Your task to perform on an android device: turn off notifications in google photos Image 0: 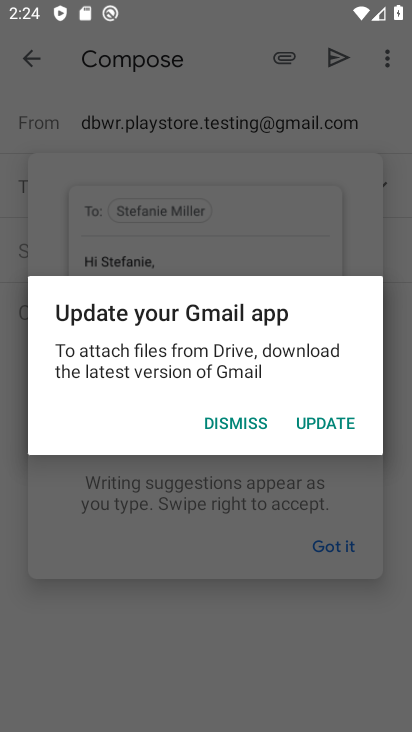
Step 0: click (321, 543)
Your task to perform on an android device: turn off notifications in google photos Image 1: 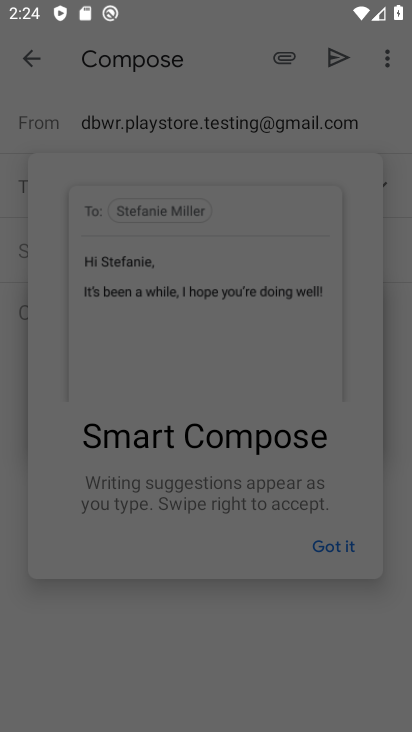
Step 1: click (341, 550)
Your task to perform on an android device: turn off notifications in google photos Image 2: 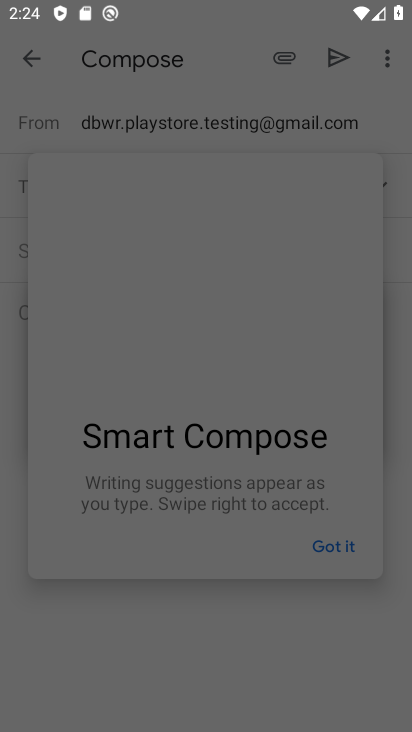
Step 2: click (341, 550)
Your task to perform on an android device: turn off notifications in google photos Image 3: 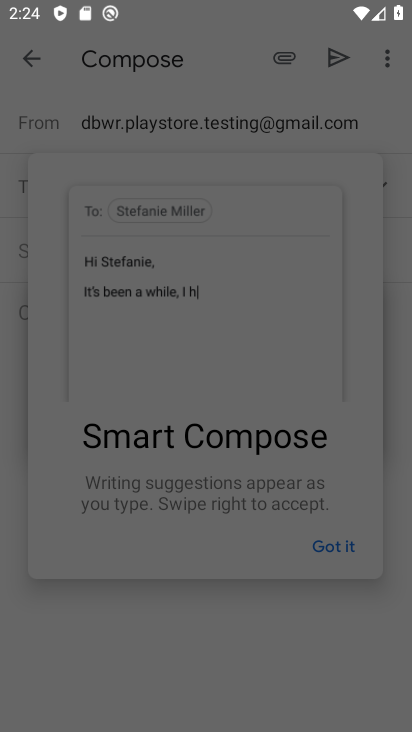
Step 3: press home button
Your task to perform on an android device: turn off notifications in google photos Image 4: 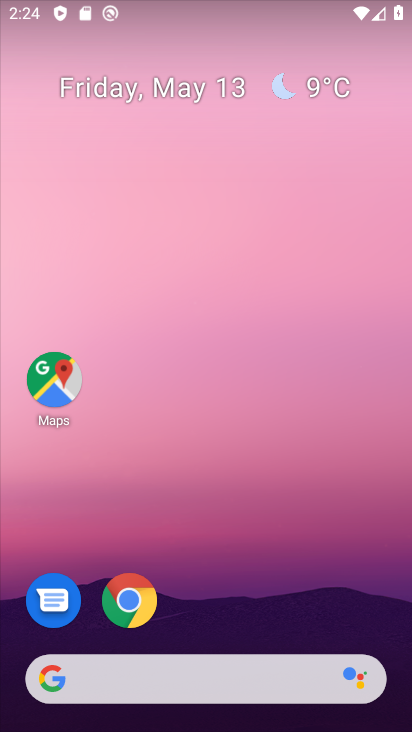
Step 4: press home button
Your task to perform on an android device: turn off notifications in google photos Image 5: 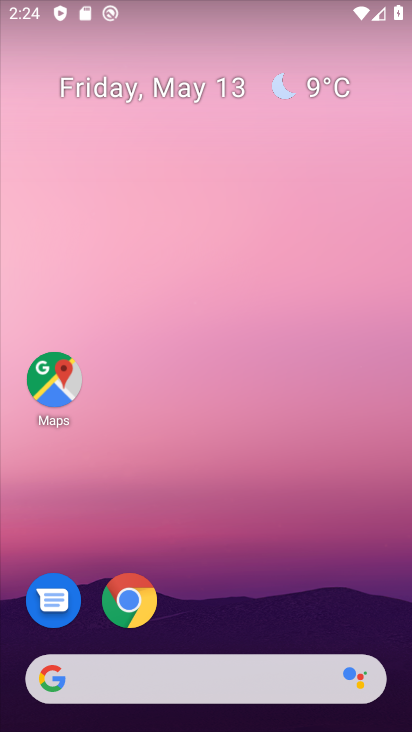
Step 5: drag from (265, 612) to (331, 63)
Your task to perform on an android device: turn off notifications in google photos Image 6: 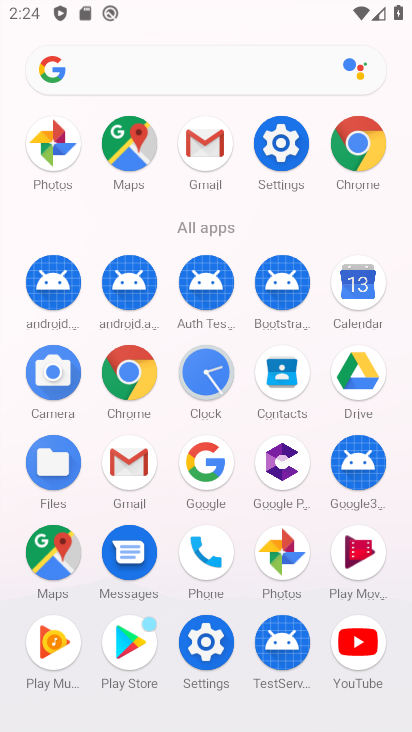
Step 6: click (292, 522)
Your task to perform on an android device: turn off notifications in google photos Image 7: 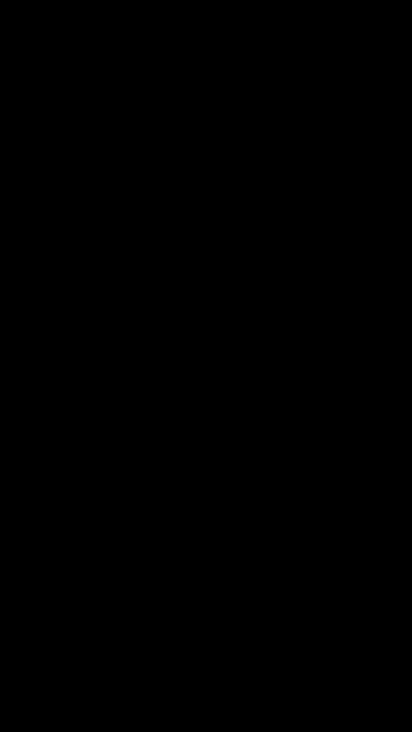
Step 7: click (272, 559)
Your task to perform on an android device: turn off notifications in google photos Image 8: 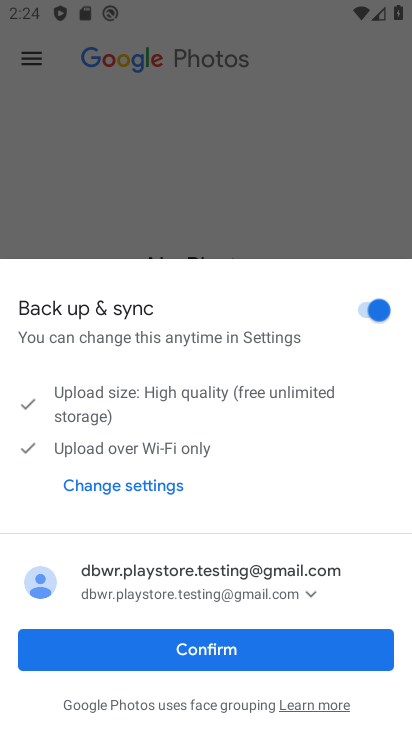
Step 8: click (235, 649)
Your task to perform on an android device: turn off notifications in google photos Image 9: 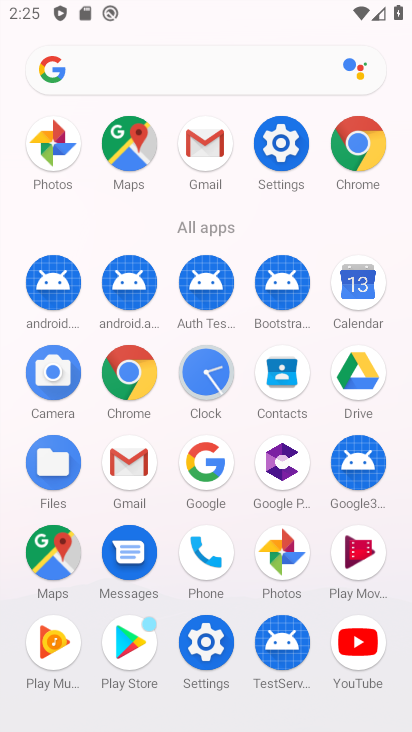
Step 9: click (281, 551)
Your task to perform on an android device: turn off notifications in google photos Image 10: 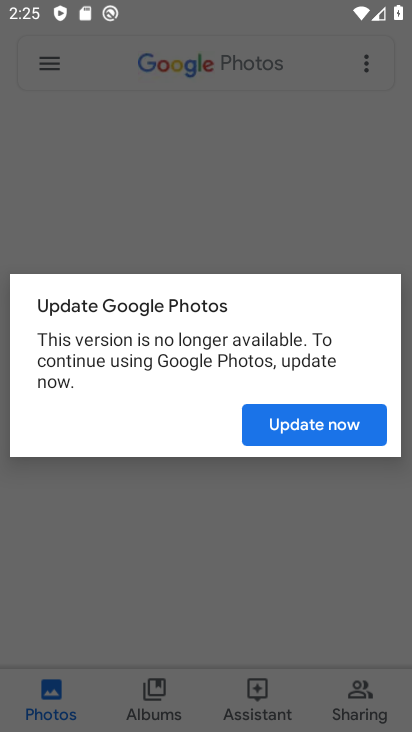
Step 10: click (305, 423)
Your task to perform on an android device: turn off notifications in google photos Image 11: 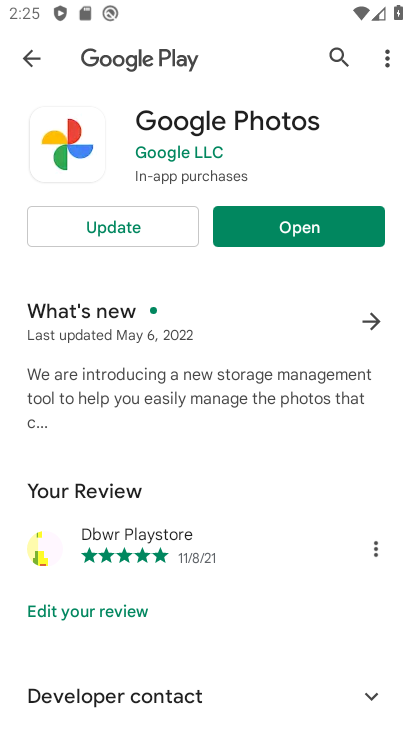
Step 11: click (268, 225)
Your task to perform on an android device: turn off notifications in google photos Image 12: 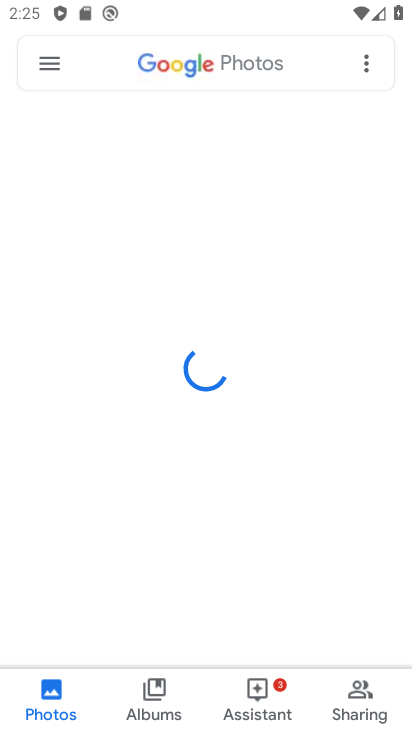
Step 12: click (34, 48)
Your task to perform on an android device: turn off notifications in google photos Image 13: 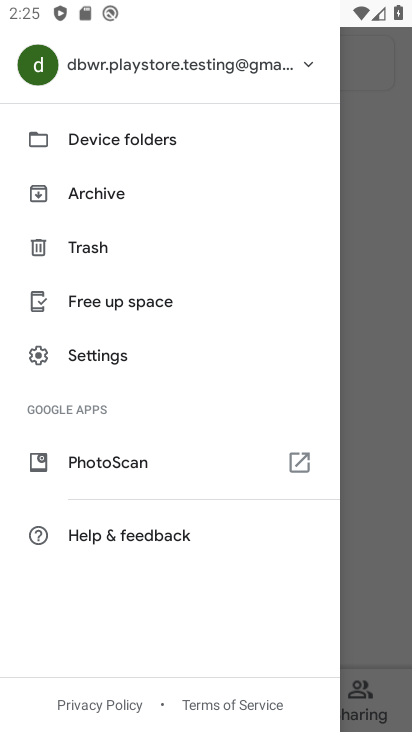
Step 13: click (107, 357)
Your task to perform on an android device: turn off notifications in google photos Image 14: 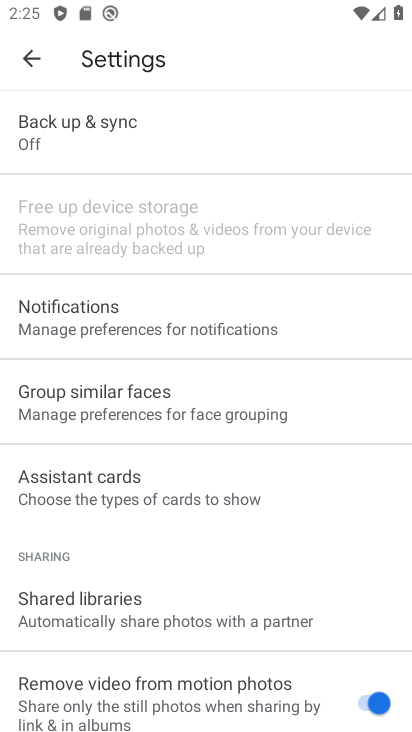
Step 14: click (122, 303)
Your task to perform on an android device: turn off notifications in google photos Image 15: 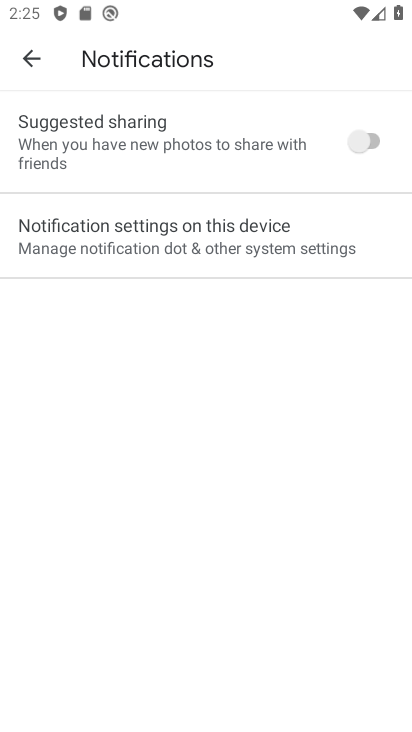
Step 15: click (315, 258)
Your task to perform on an android device: turn off notifications in google photos Image 16: 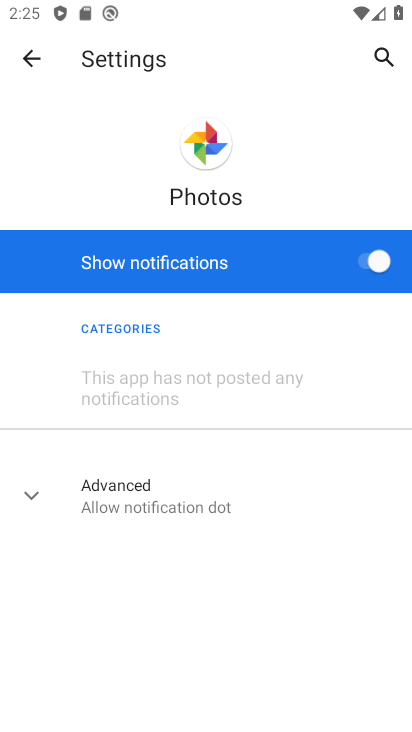
Step 16: click (389, 259)
Your task to perform on an android device: turn off notifications in google photos Image 17: 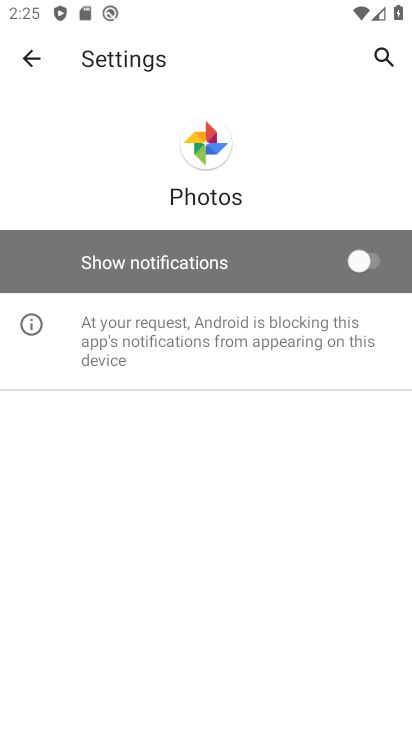
Step 17: task complete